Your task to perform on an android device: delete location history Image 0: 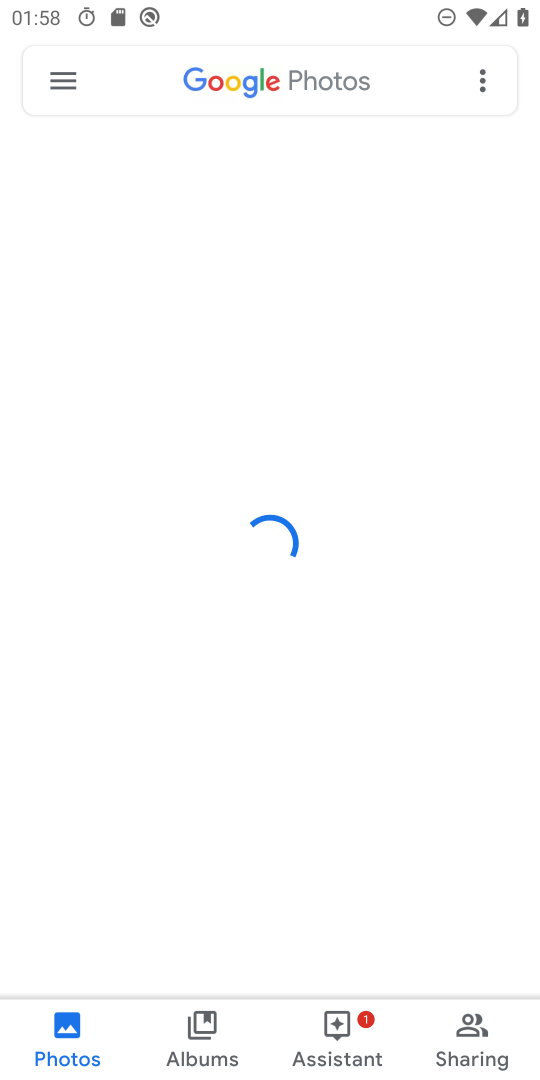
Step 0: press home button
Your task to perform on an android device: delete location history Image 1: 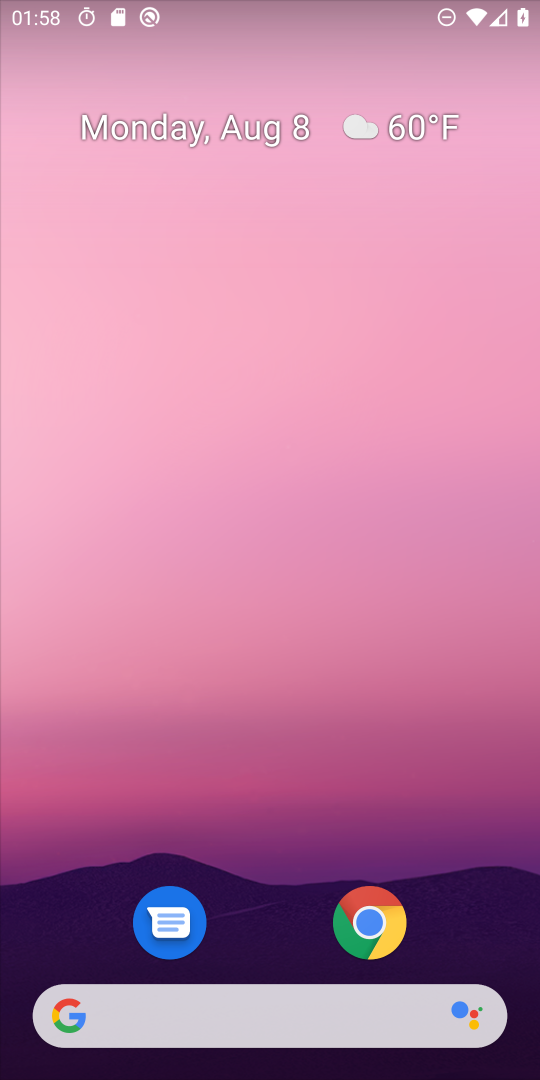
Step 1: drag from (454, 879) to (352, 161)
Your task to perform on an android device: delete location history Image 2: 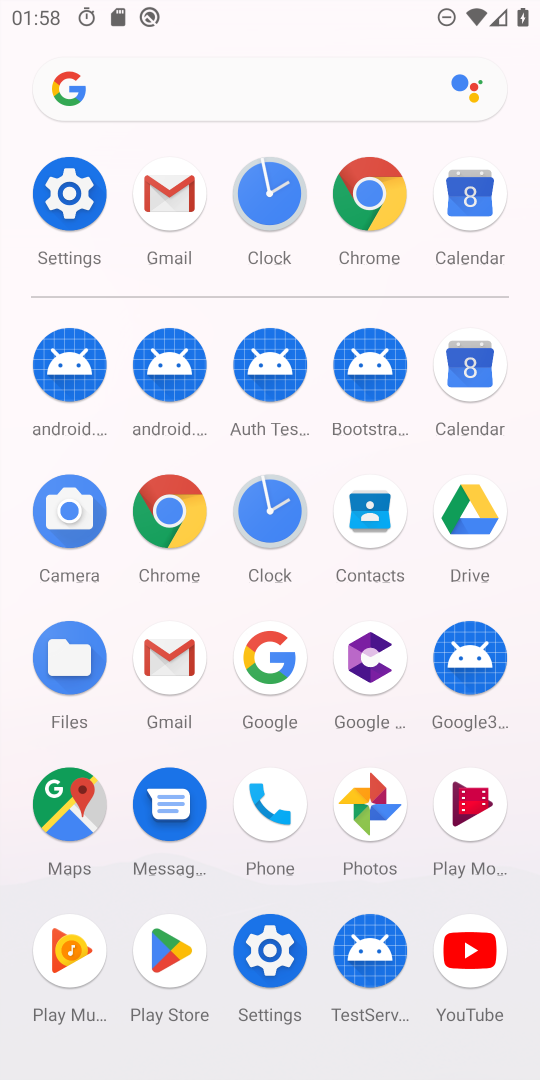
Step 2: click (77, 820)
Your task to perform on an android device: delete location history Image 3: 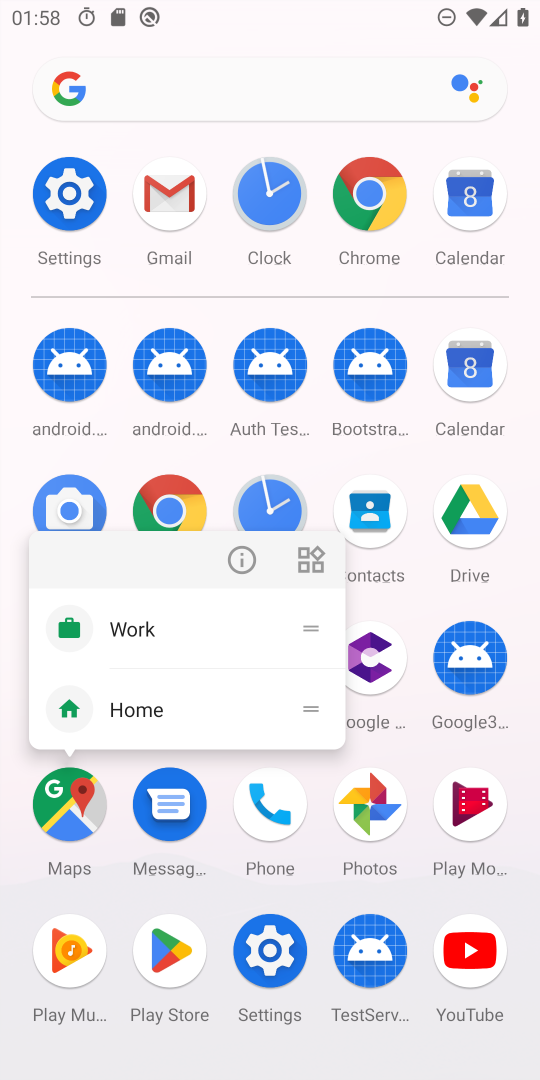
Step 3: click (68, 812)
Your task to perform on an android device: delete location history Image 4: 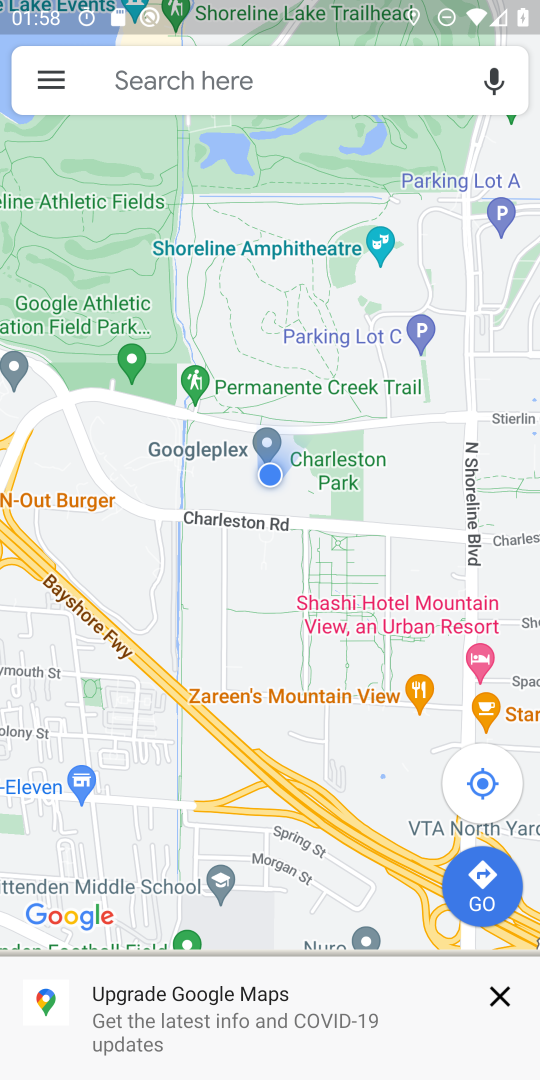
Step 4: click (57, 78)
Your task to perform on an android device: delete location history Image 5: 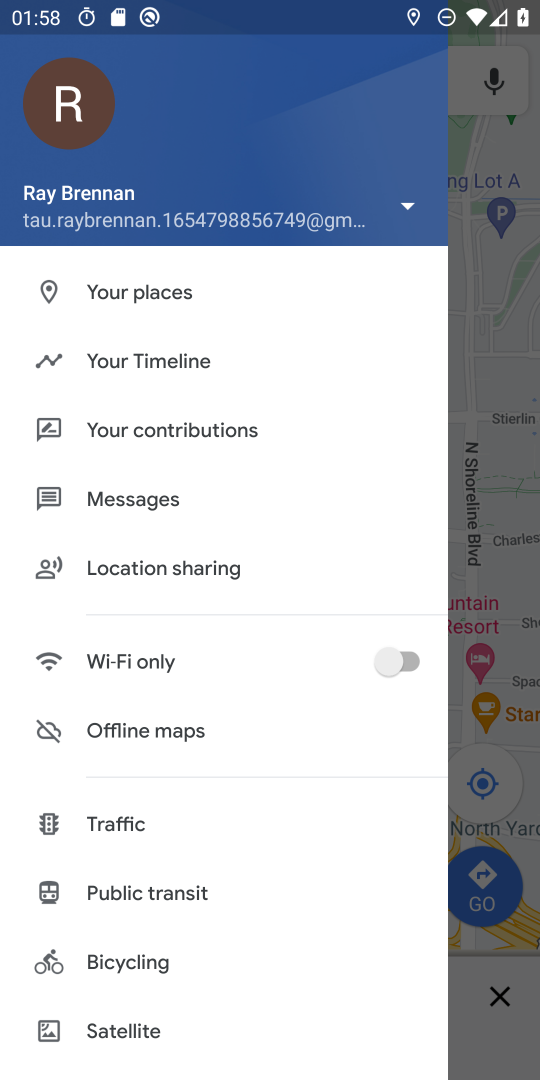
Step 5: drag from (230, 890) to (282, 310)
Your task to perform on an android device: delete location history Image 6: 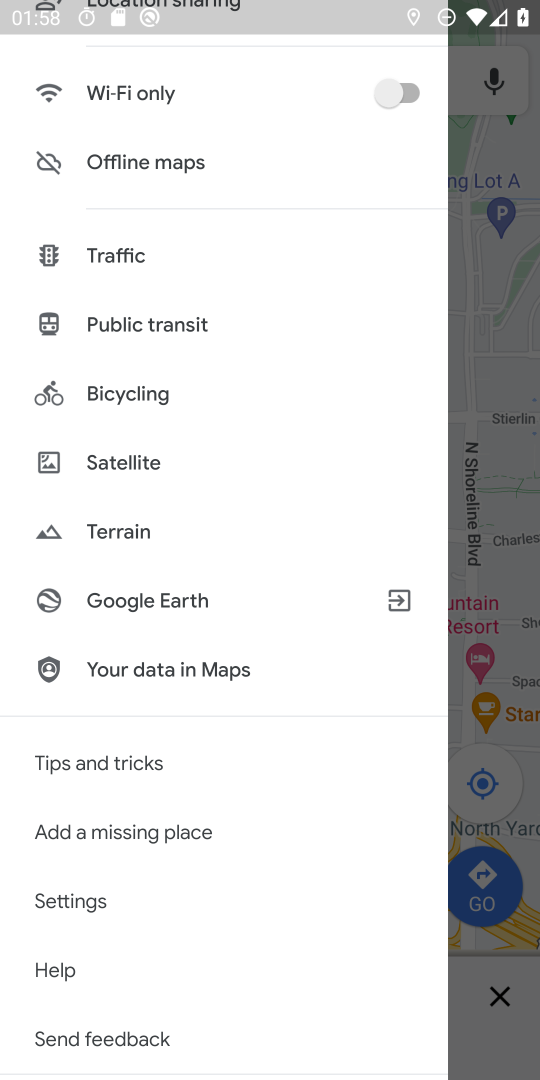
Step 6: drag from (137, 933) to (192, 510)
Your task to perform on an android device: delete location history Image 7: 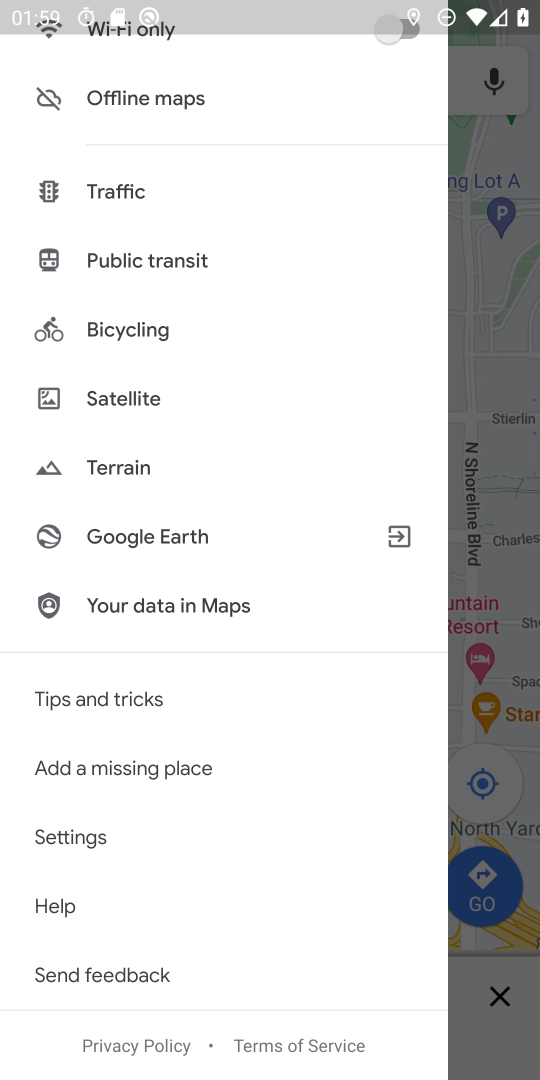
Step 7: click (79, 833)
Your task to perform on an android device: delete location history Image 8: 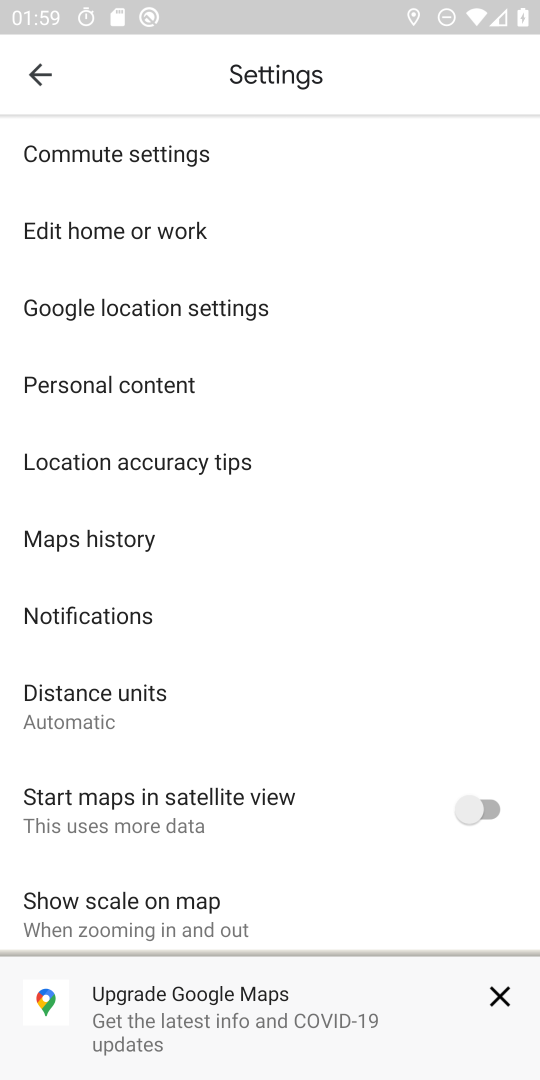
Step 8: click (131, 543)
Your task to perform on an android device: delete location history Image 9: 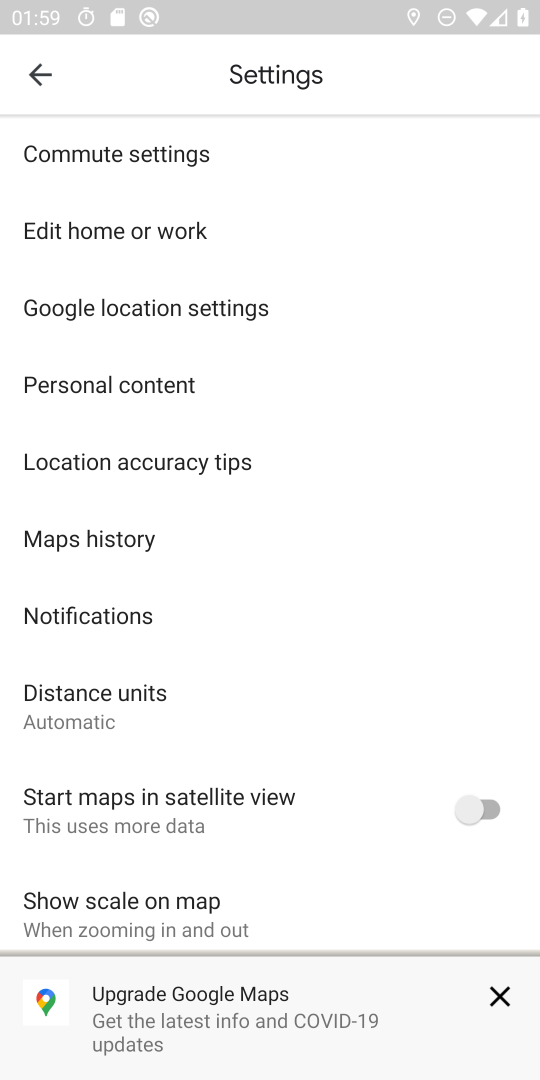
Step 9: click (147, 529)
Your task to perform on an android device: delete location history Image 10: 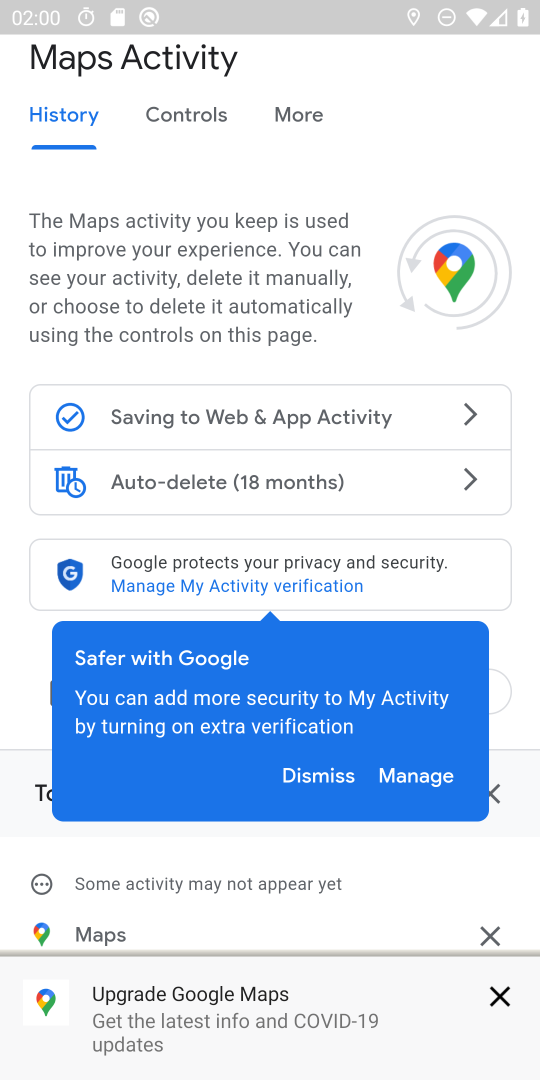
Step 10: click (331, 783)
Your task to perform on an android device: delete location history Image 11: 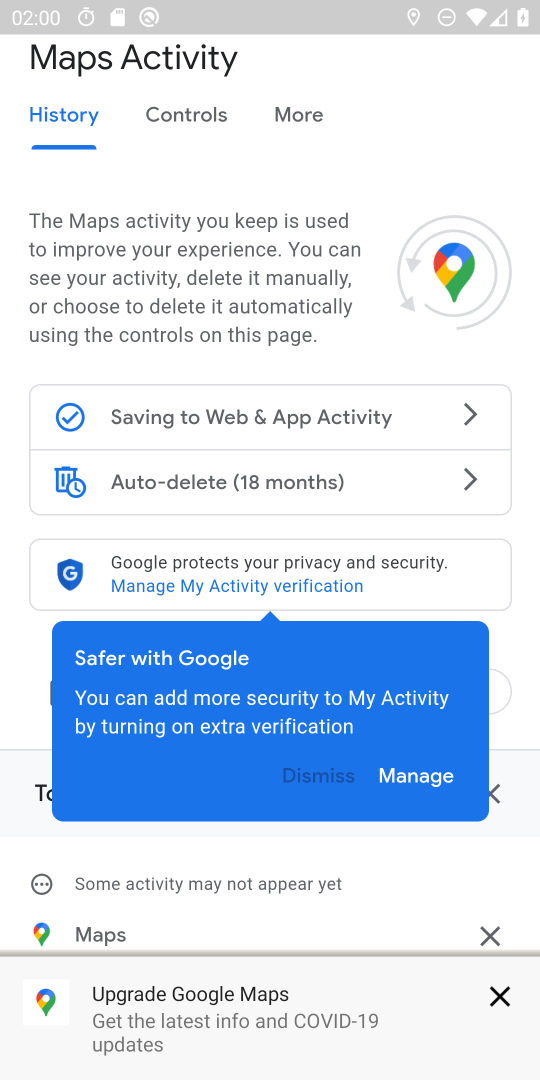
Step 11: click (327, 775)
Your task to perform on an android device: delete location history Image 12: 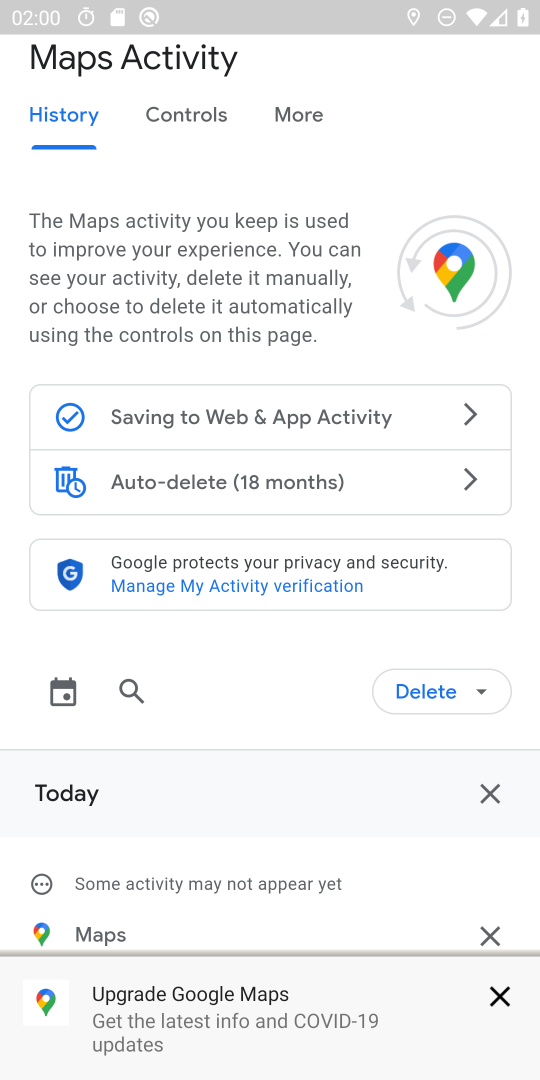
Step 12: click (317, 871)
Your task to perform on an android device: delete location history Image 13: 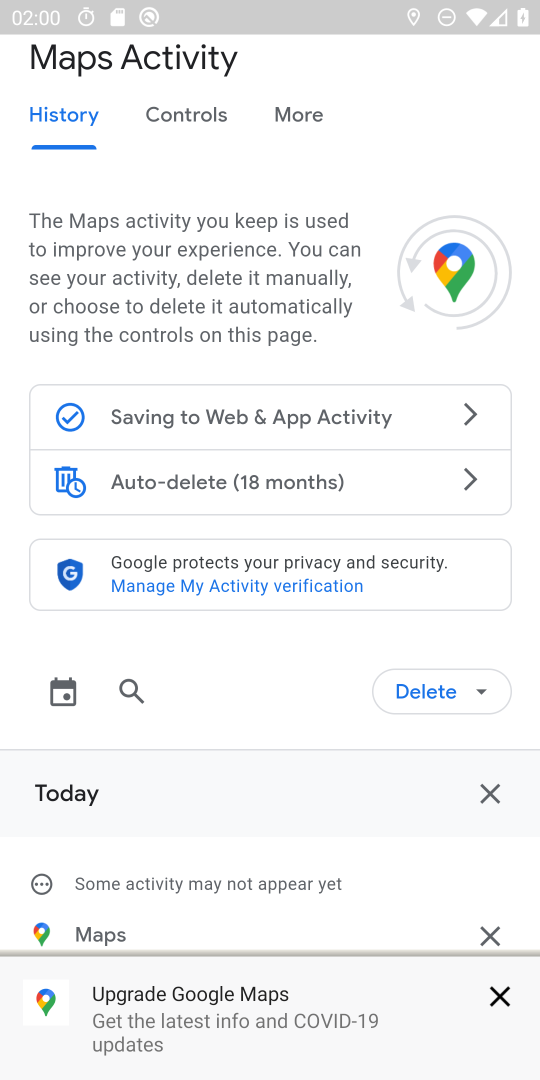
Step 13: click (480, 696)
Your task to perform on an android device: delete location history Image 14: 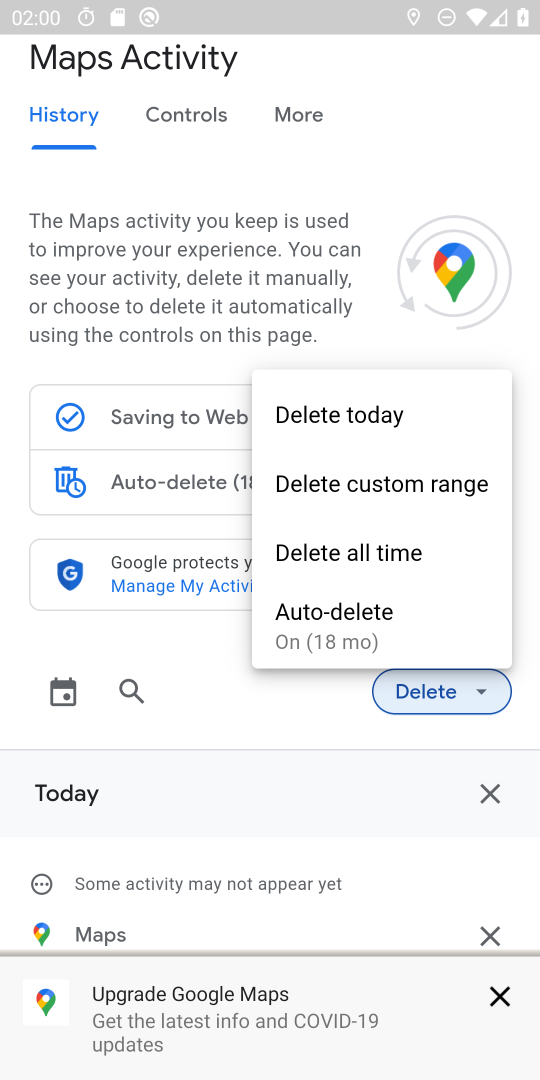
Step 14: click (358, 564)
Your task to perform on an android device: delete location history Image 15: 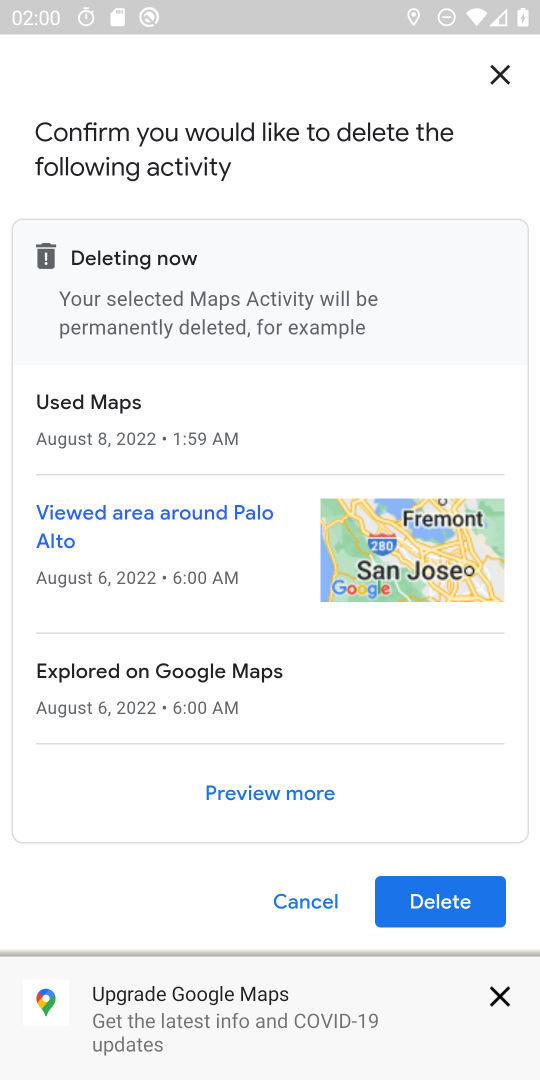
Step 15: click (471, 913)
Your task to perform on an android device: delete location history Image 16: 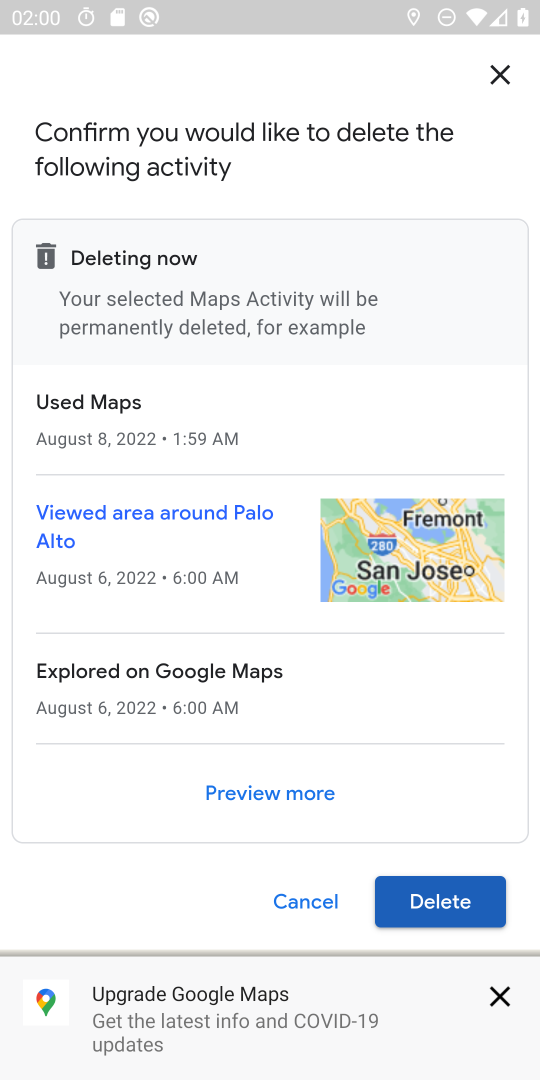
Step 16: click (471, 911)
Your task to perform on an android device: delete location history Image 17: 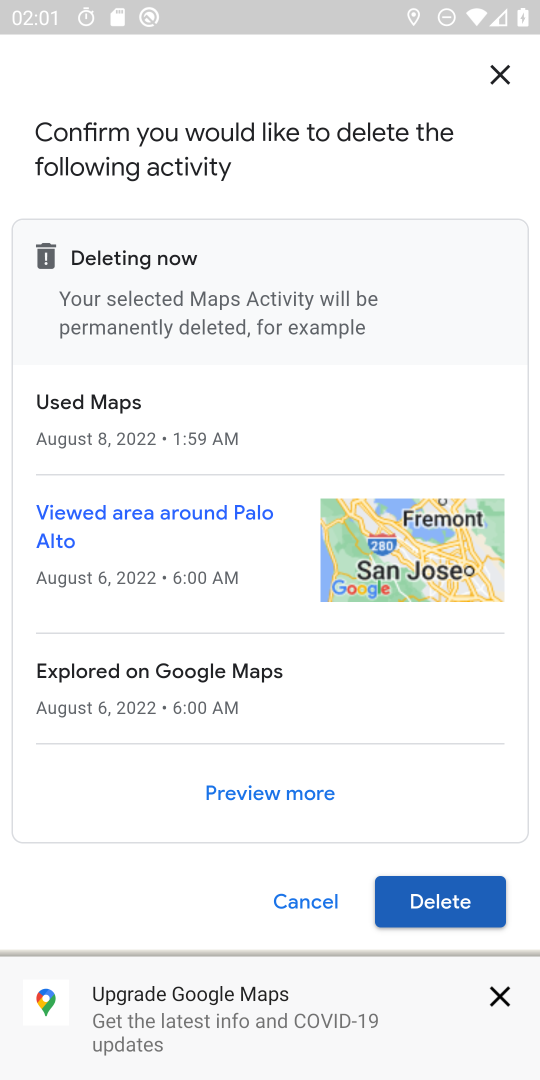
Step 17: click (451, 883)
Your task to perform on an android device: delete location history Image 18: 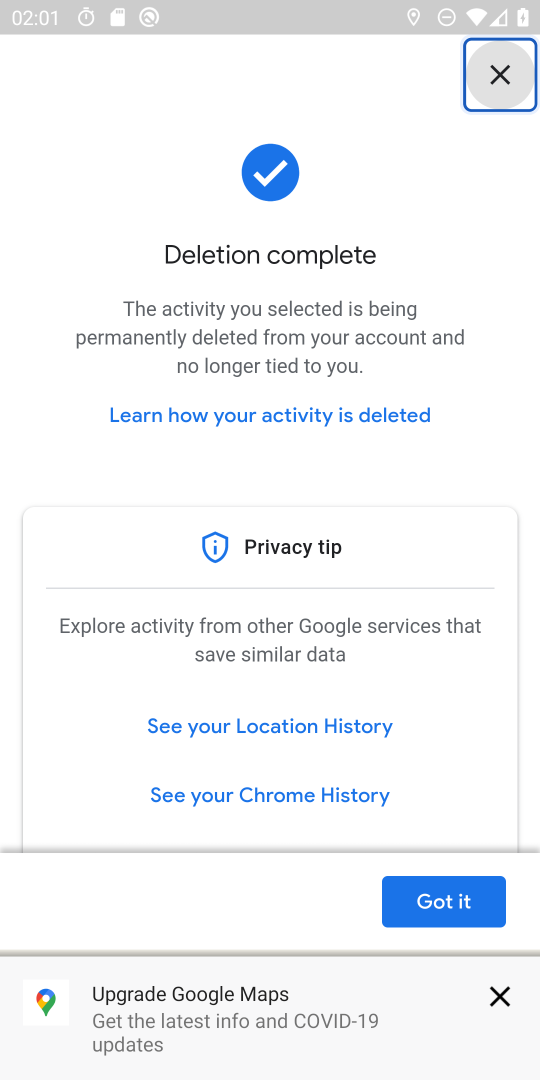
Step 18: task complete